Your task to perform on an android device: open chrome and create a bookmark for the current page Image 0: 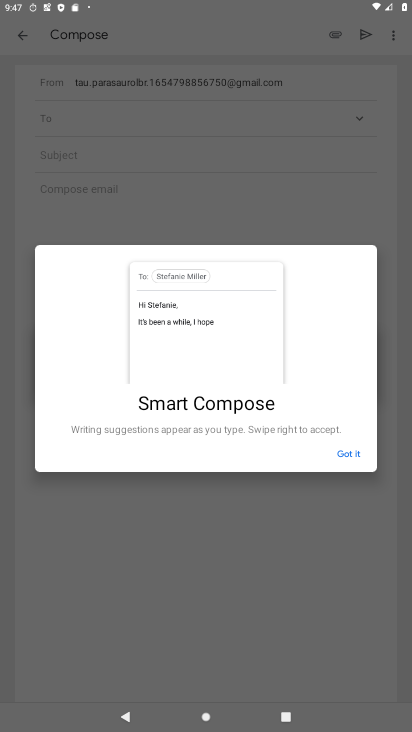
Step 0: press home button
Your task to perform on an android device: open chrome and create a bookmark for the current page Image 1: 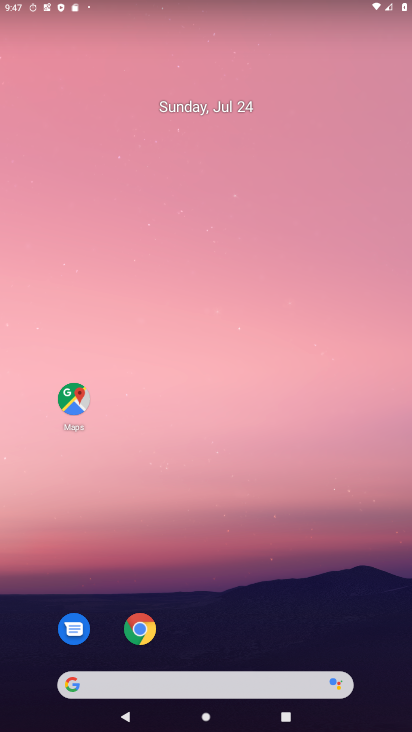
Step 1: drag from (228, 674) to (204, 162)
Your task to perform on an android device: open chrome and create a bookmark for the current page Image 2: 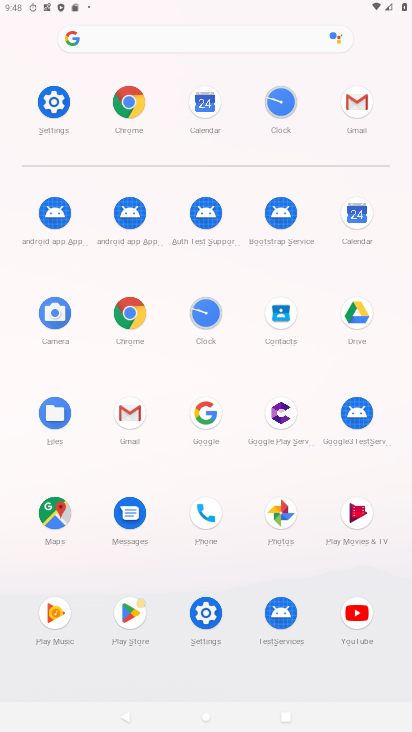
Step 2: click (123, 342)
Your task to perform on an android device: open chrome and create a bookmark for the current page Image 3: 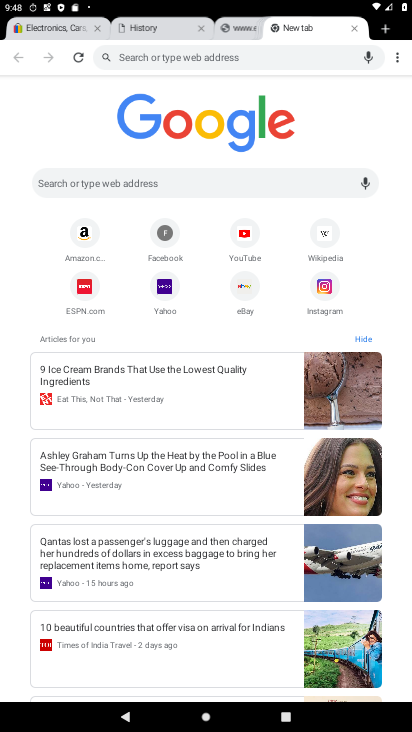
Step 3: click (399, 58)
Your task to perform on an android device: open chrome and create a bookmark for the current page Image 4: 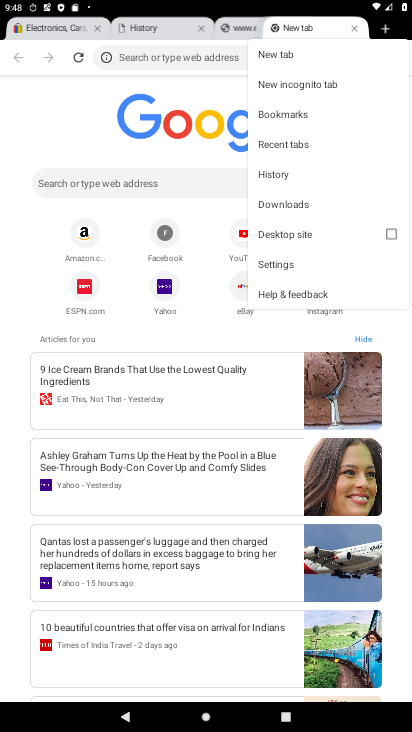
Step 4: drag from (305, 248) to (303, 88)
Your task to perform on an android device: open chrome and create a bookmark for the current page Image 5: 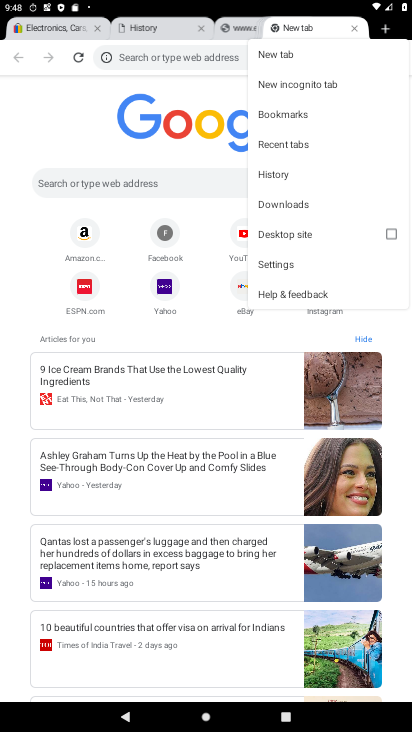
Step 5: drag from (315, 243) to (310, 86)
Your task to perform on an android device: open chrome and create a bookmark for the current page Image 6: 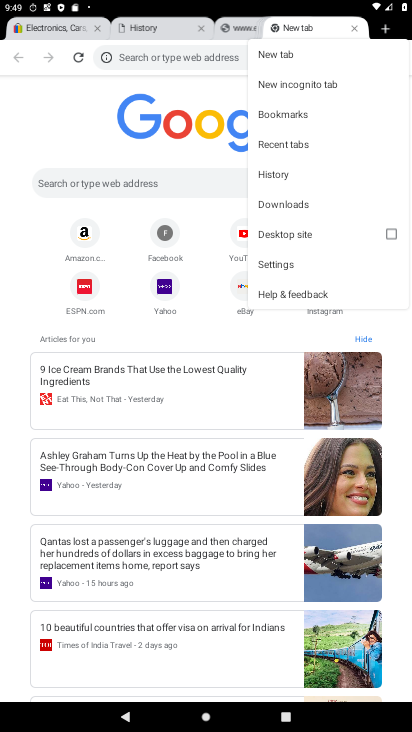
Step 6: click (298, 117)
Your task to perform on an android device: open chrome and create a bookmark for the current page Image 7: 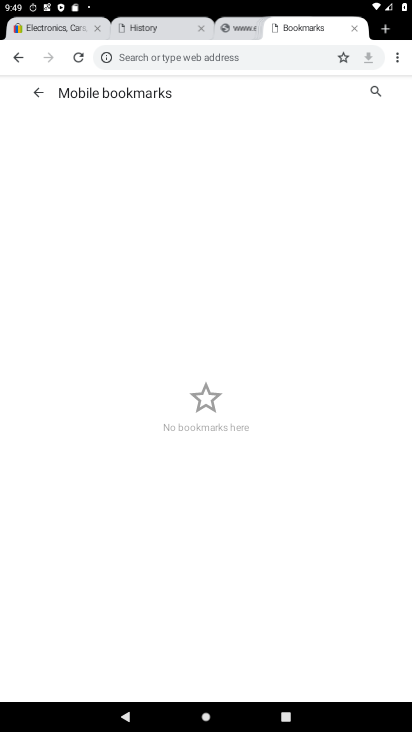
Step 7: task complete